Your task to perform on an android device: Go to CNN.com Image 0: 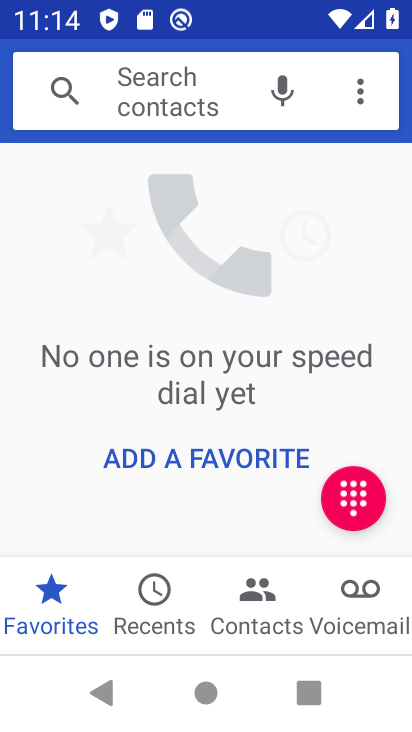
Step 0: press home button
Your task to perform on an android device: Go to CNN.com Image 1: 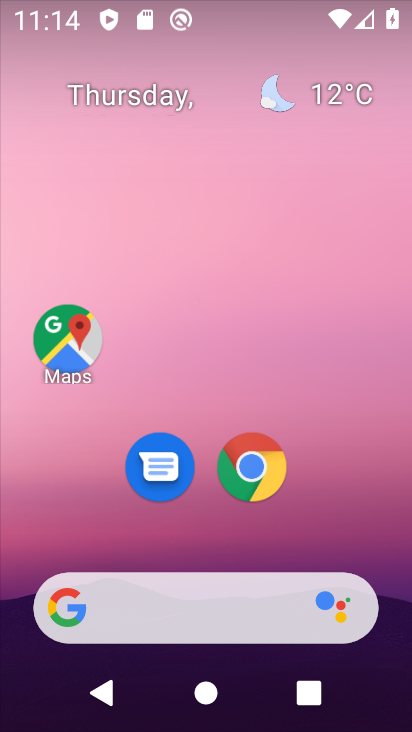
Step 1: drag from (330, 523) to (263, 22)
Your task to perform on an android device: Go to CNN.com Image 2: 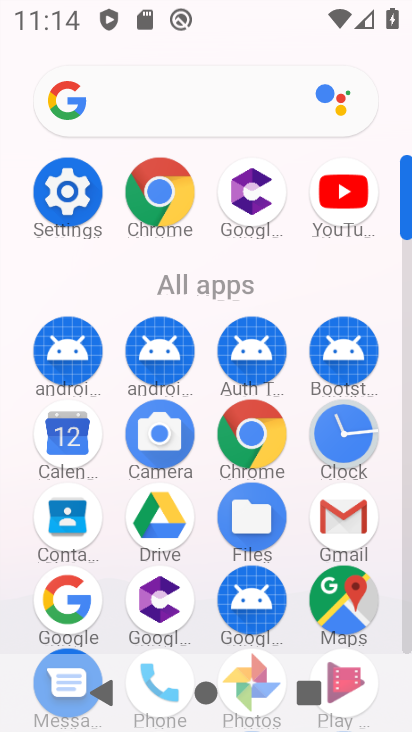
Step 2: click (177, 191)
Your task to perform on an android device: Go to CNN.com Image 3: 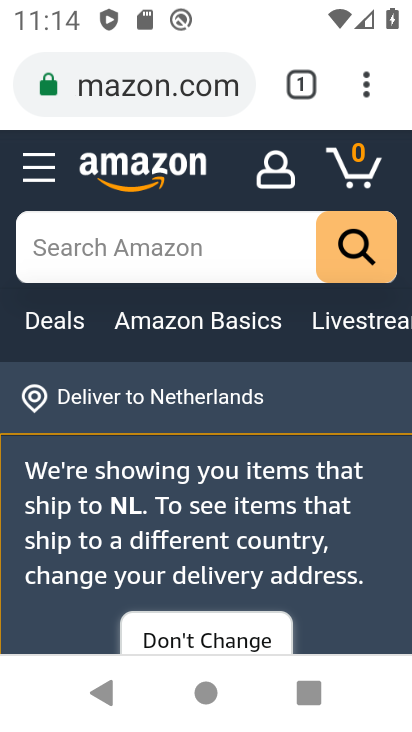
Step 3: click (201, 85)
Your task to perform on an android device: Go to CNN.com Image 4: 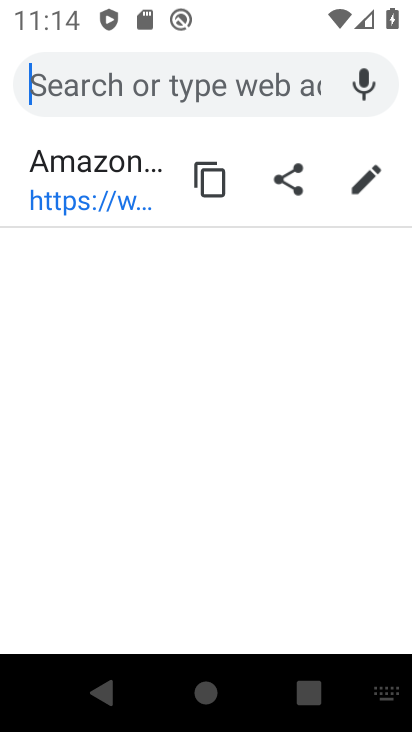
Step 4: type "cnn"
Your task to perform on an android device: Go to CNN.com Image 5: 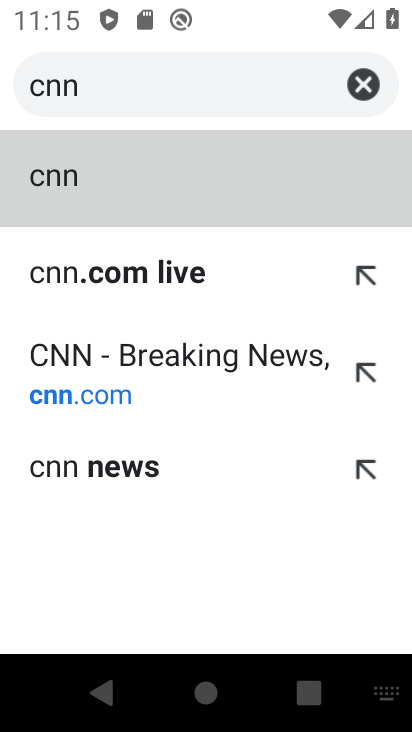
Step 5: click (95, 261)
Your task to perform on an android device: Go to CNN.com Image 6: 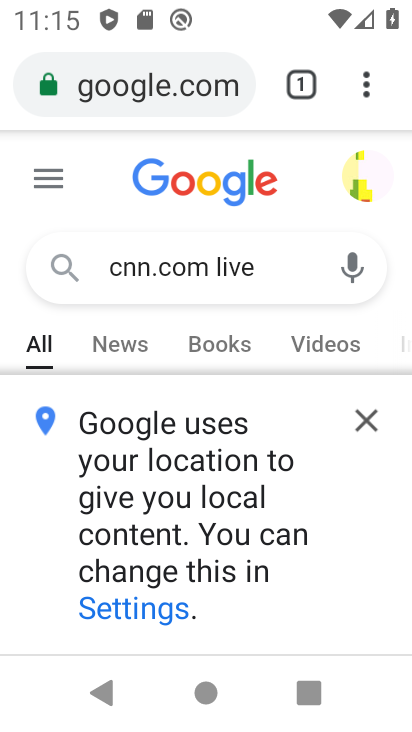
Step 6: click (371, 427)
Your task to perform on an android device: Go to CNN.com Image 7: 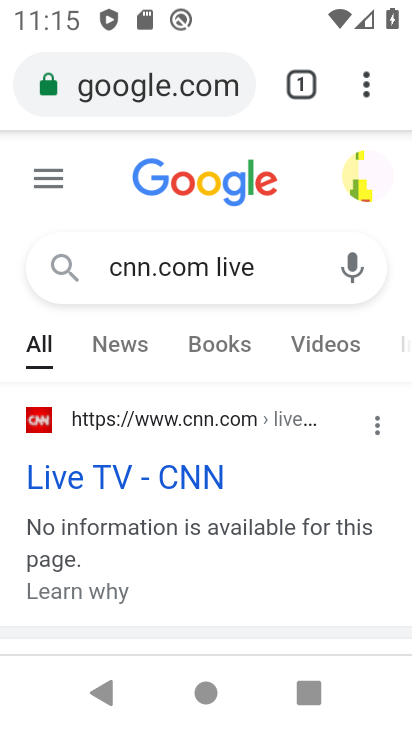
Step 7: click (76, 486)
Your task to perform on an android device: Go to CNN.com Image 8: 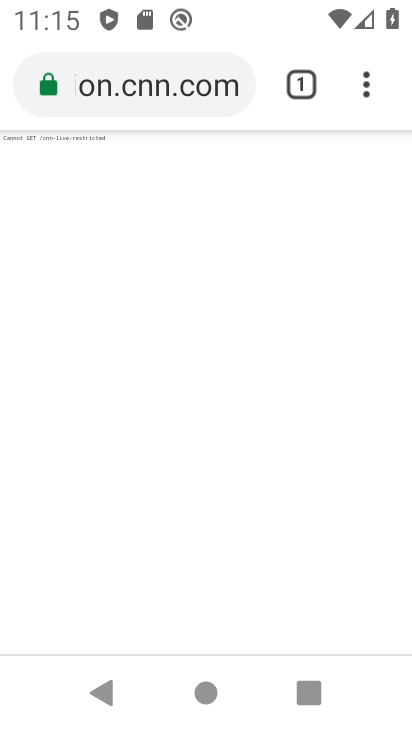
Step 8: task complete